Your task to perform on an android device: change text size in settings app Image 0: 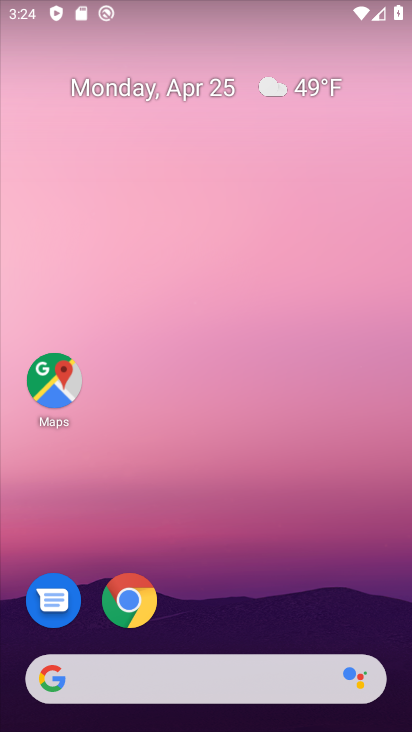
Step 0: drag from (314, 583) to (344, 7)
Your task to perform on an android device: change text size in settings app Image 1: 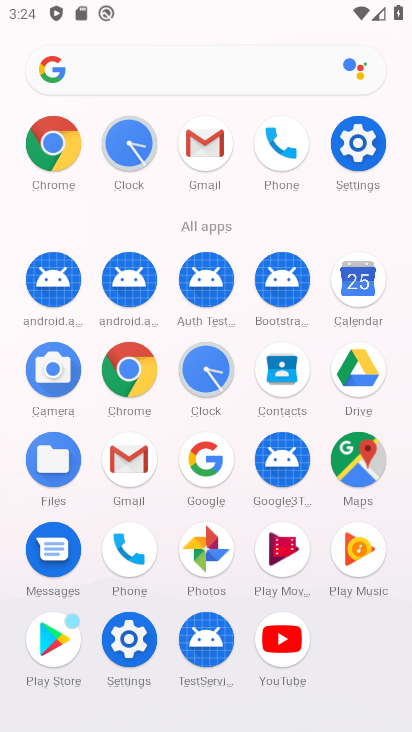
Step 1: click (348, 143)
Your task to perform on an android device: change text size in settings app Image 2: 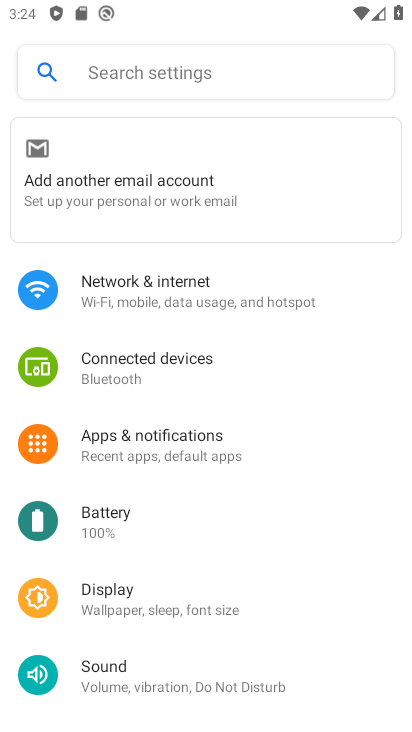
Step 2: drag from (229, 562) to (274, 189)
Your task to perform on an android device: change text size in settings app Image 3: 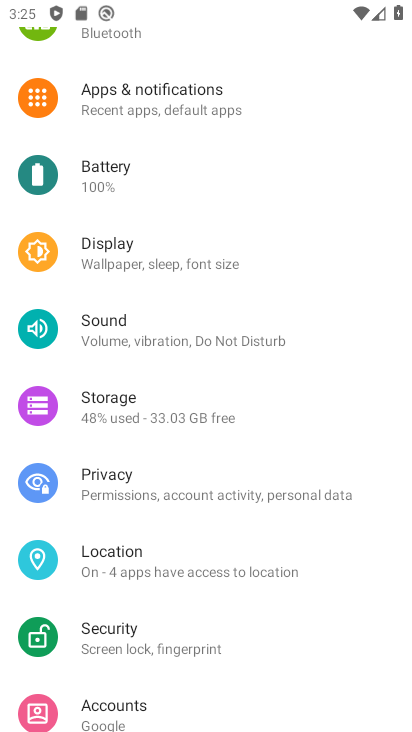
Step 3: click (211, 258)
Your task to perform on an android device: change text size in settings app Image 4: 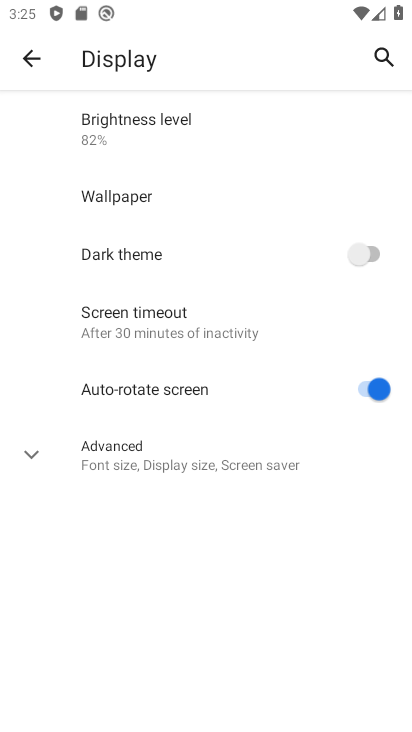
Step 4: click (25, 455)
Your task to perform on an android device: change text size in settings app Image 5: 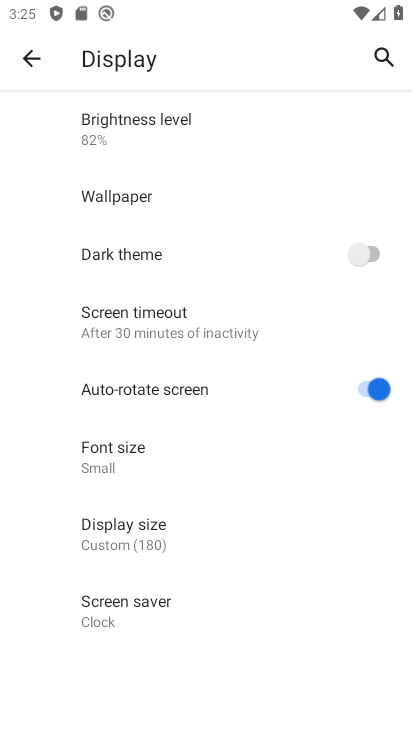
Step 5: click (113, 458)
Your task to perform on an android device: change text size in settings app Image 6: 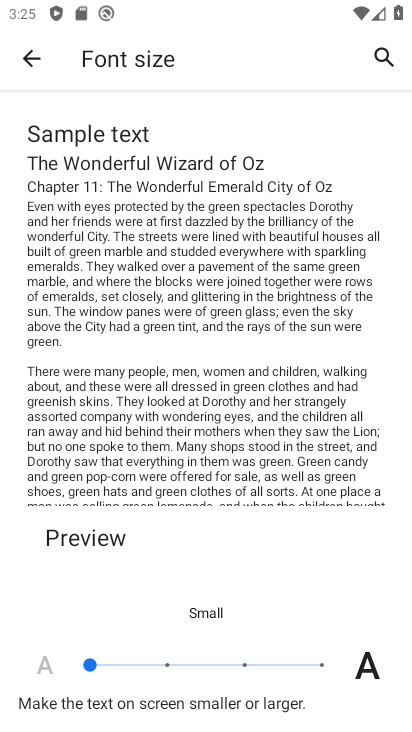
Step 6: click (164, 660)
Your task to perform on an android device: change text size in settings app Image 7: 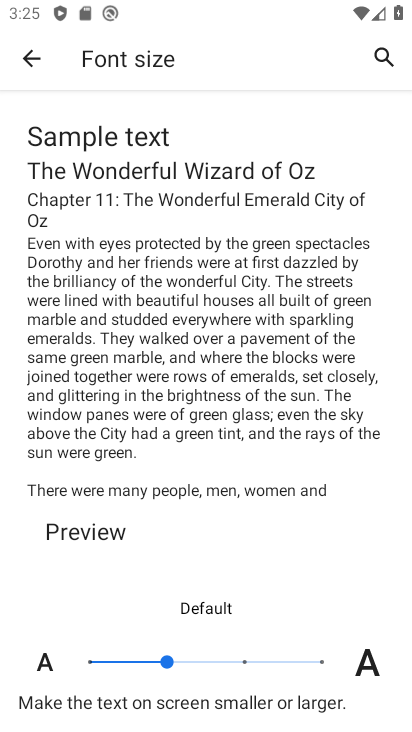
Step 7: task complete